Your task to perform on an android device: find photos in the google photos app Image 0: 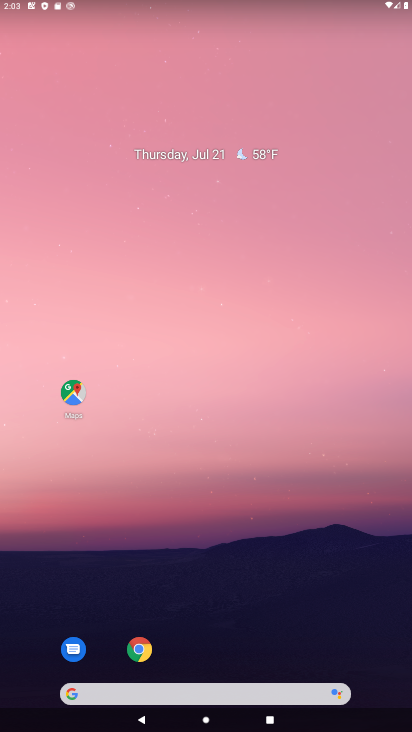
Step 0: click (149, 655)
Your task to perform on an android device: find photos in the google photos app Image 1: 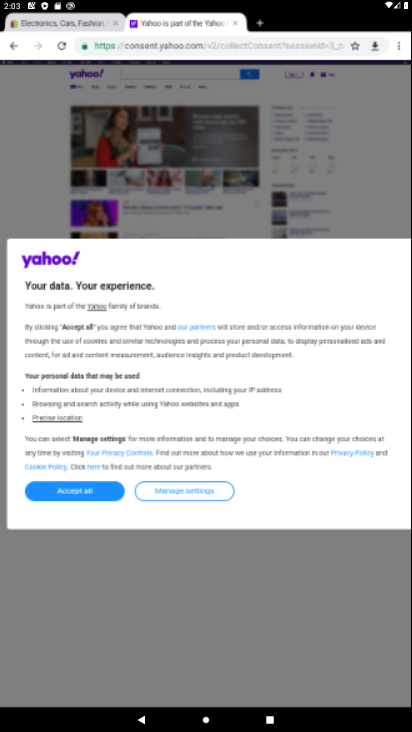
Step 1: press home button
Your task to perform on an android device: find photos in the google photos app Image 2: 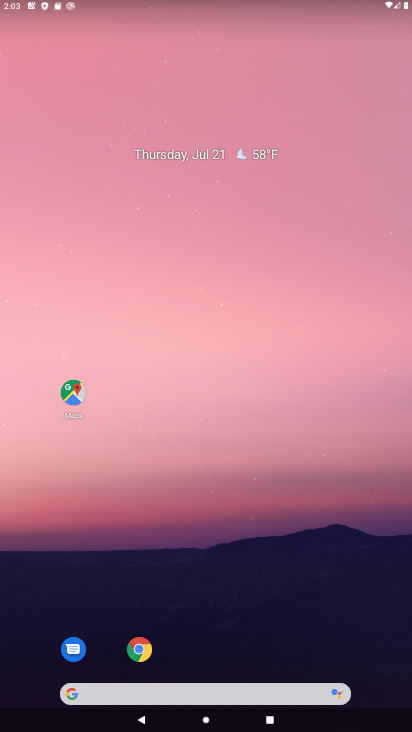
Step 2: drag from (285, 663) to (268, 114)
Your task to perform on an android device: find photos in the google photos app Image 3: 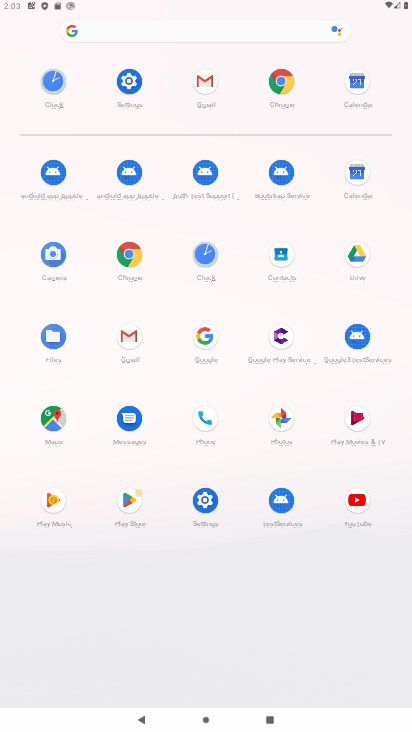
Step 3: click (268, 417)
Your task to perform on an android device: find photos in the google photos app Image 4: 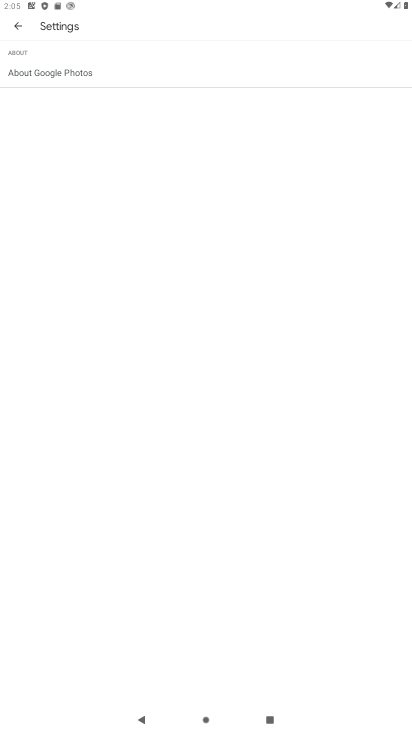
Step 4: click (21, 29)
Your task to perform on an android device: find photos in the google photos app Image 5: 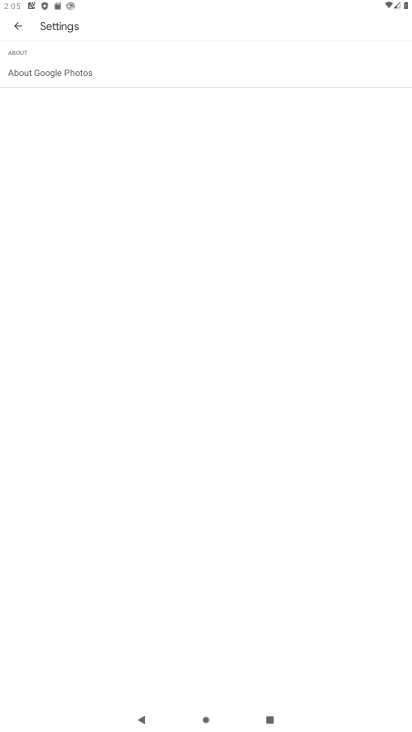
Step 5: task complete